Your task to perform on an android device: turn notification dots on Image 0: 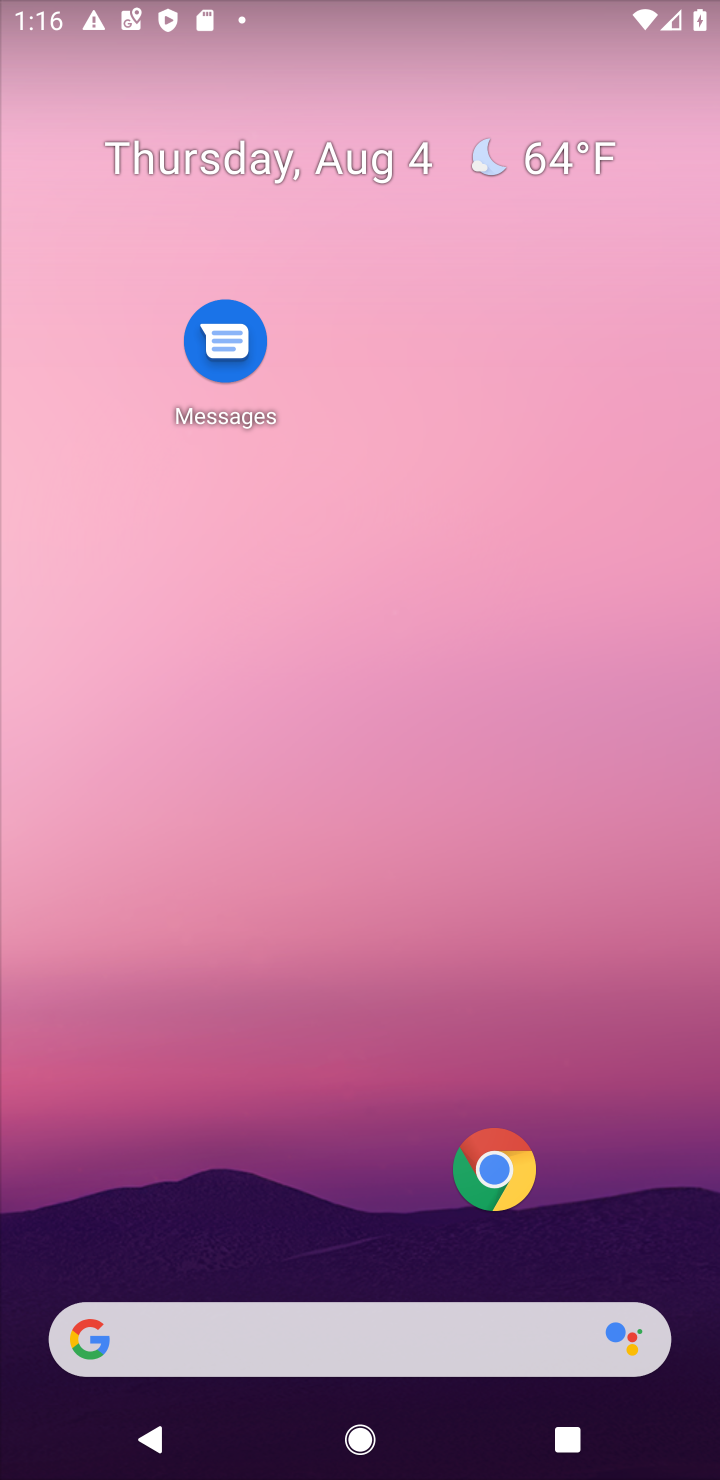
Step 0: drag from (279, 1263) to (194, 6)
Your task to perform on an android device: turn notification dots on Image 1: 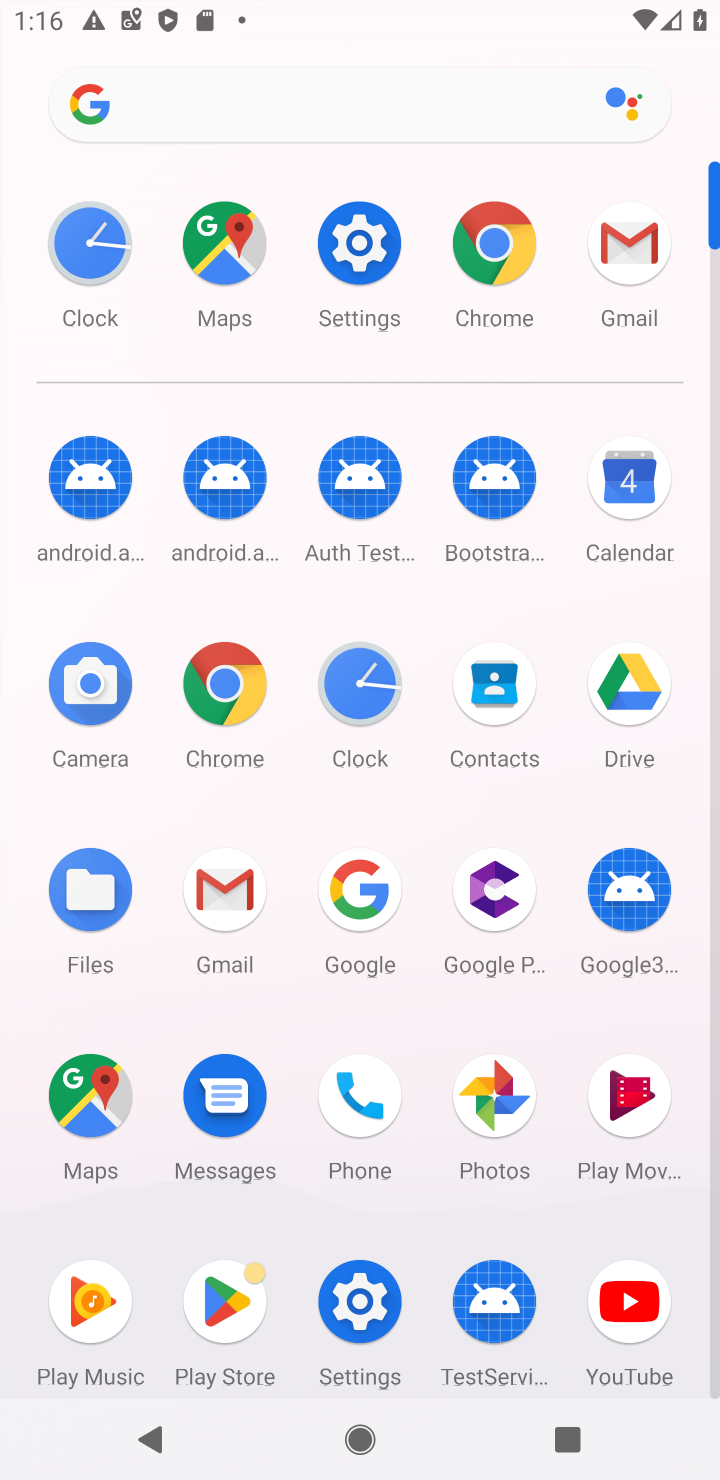
Step 1: click (350, 273)
Your task to perform on an android device: turn notification dots on Image 2: 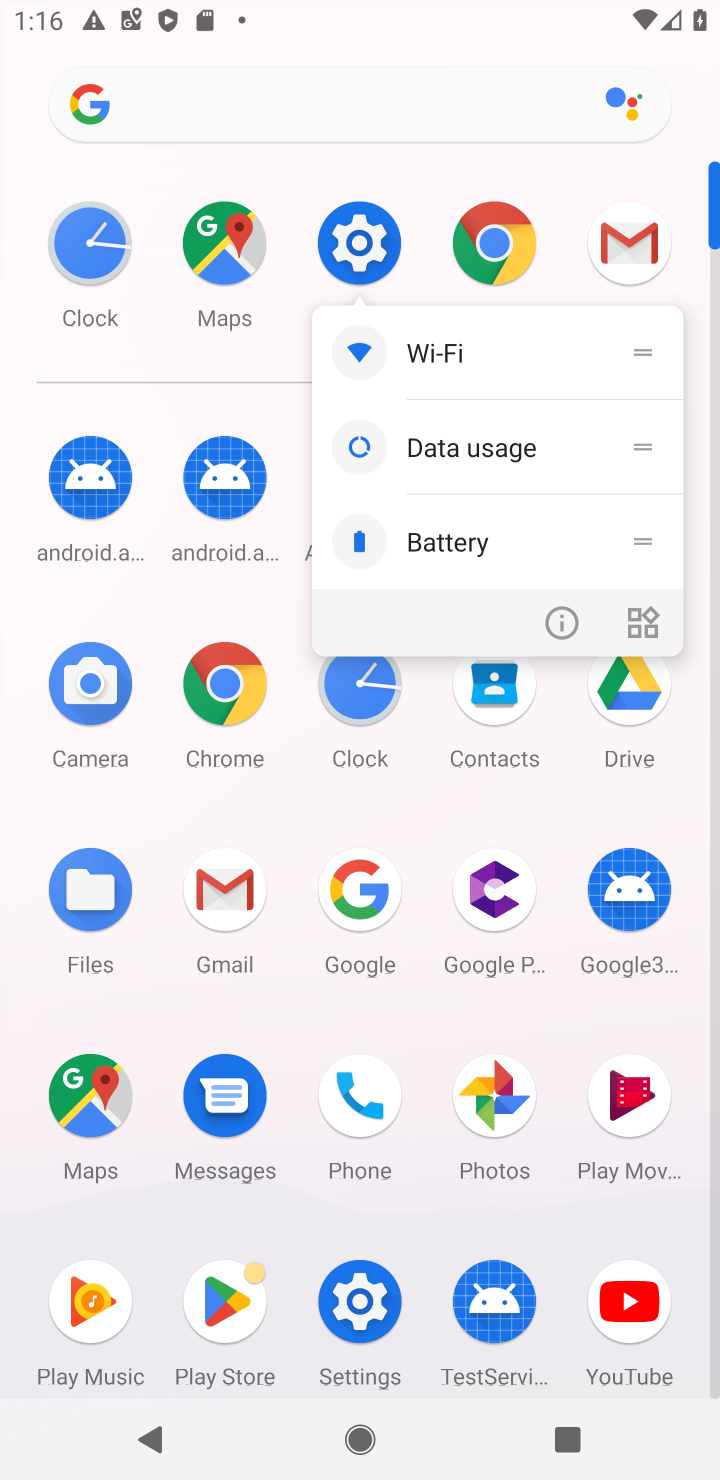
Step 2: click (376, 240)
Your task to perform on an android device: turn notification dots on Image 3: 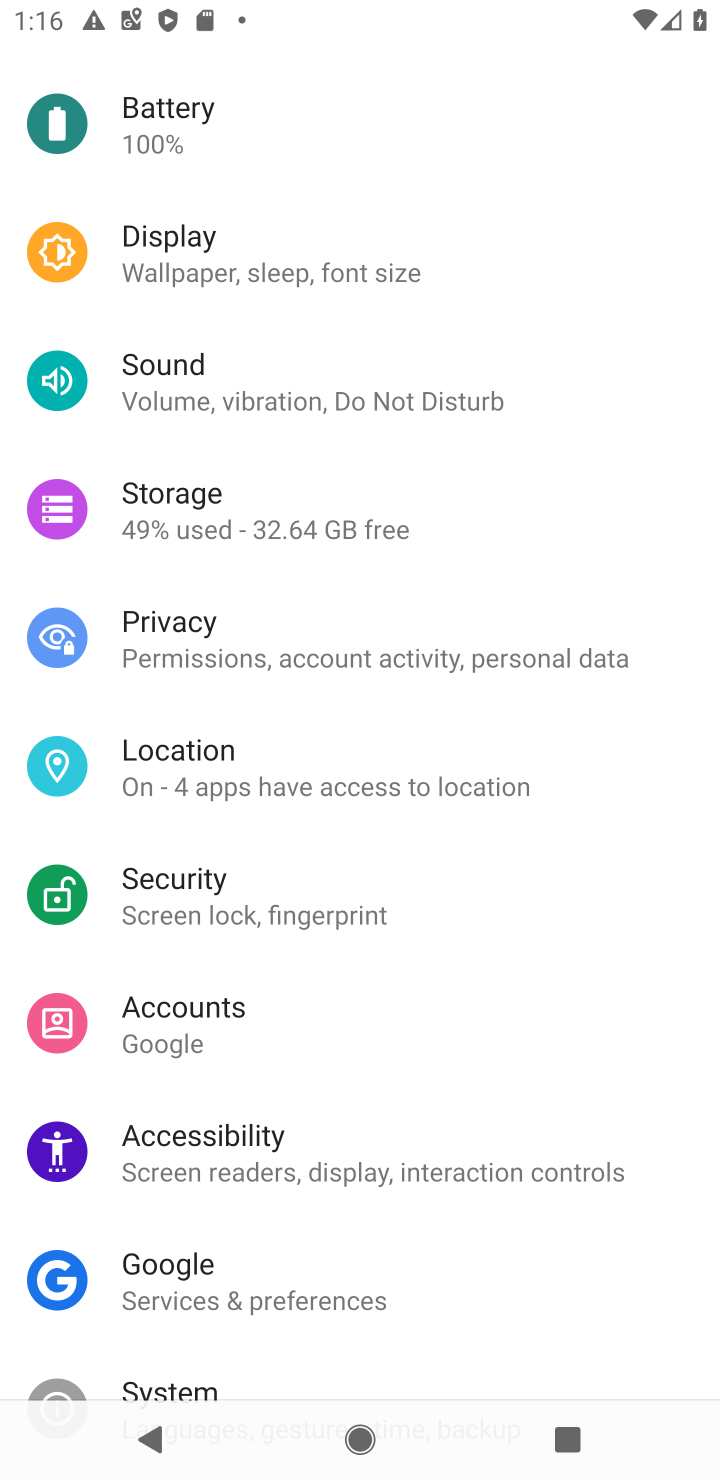
Step 3: drag from (233, 350) to (299, 1328)
Your task to perform on an android device: turn notification dots on Image 4: 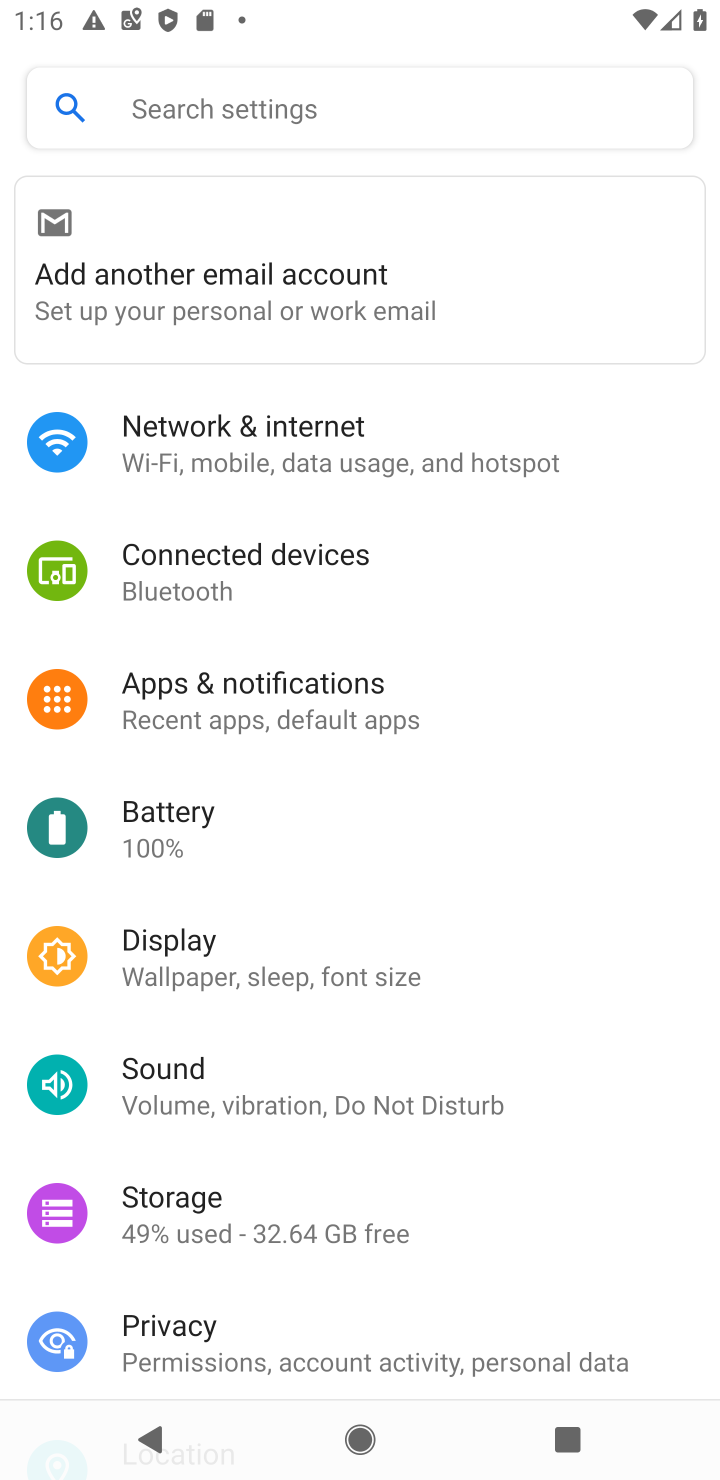
Step 4: click (298, 699)
Your task to perform on an android device: turn notification dots on Image 5: 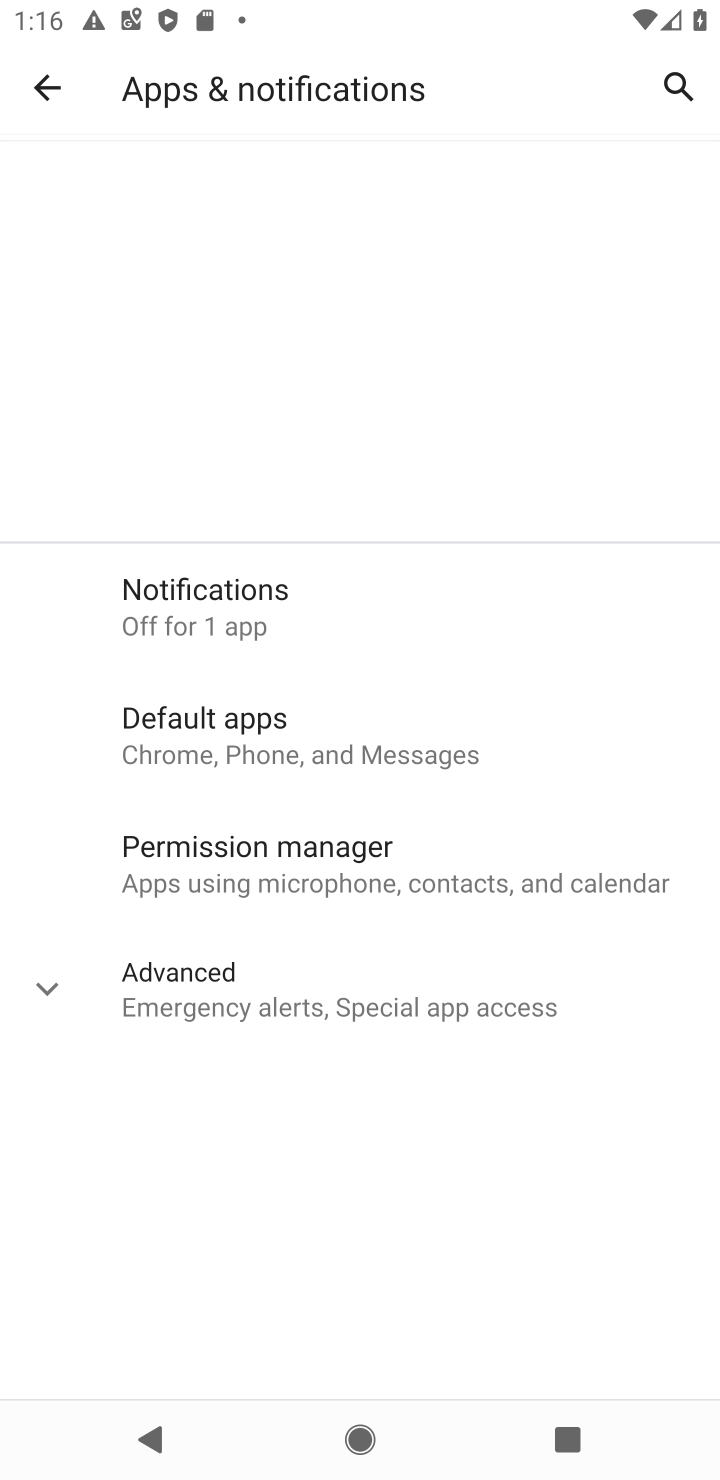
Step 5: click (247, 619)
Your task to perform on an android device: turn notification dots on Image 6: 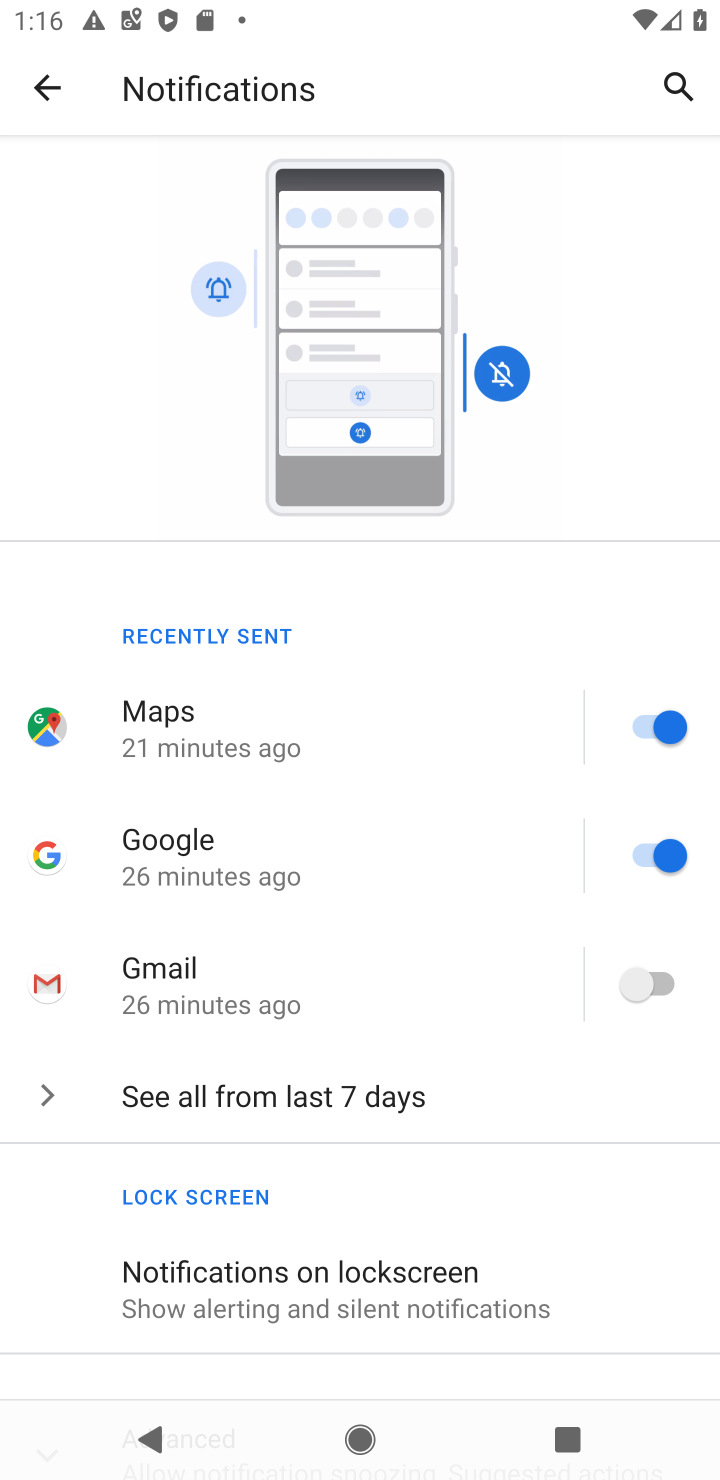
Step 6: drag from (239, 1240) to (271, 576)
Your task to perform on an android device: turn notification dots on Image 7: 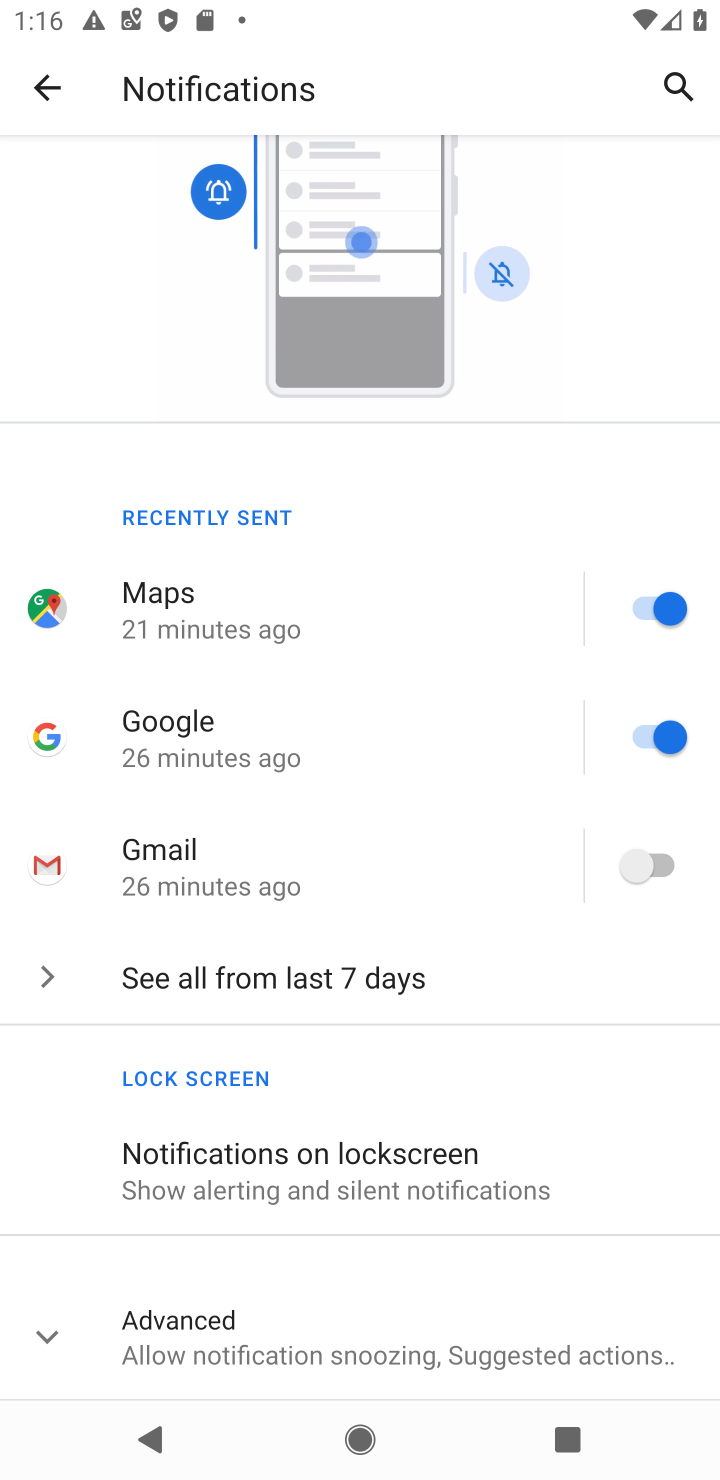
Step 7: drag from (288, 1234) to (290, 965)
Your task to perform on an android device: turn notification dots on Image 8: 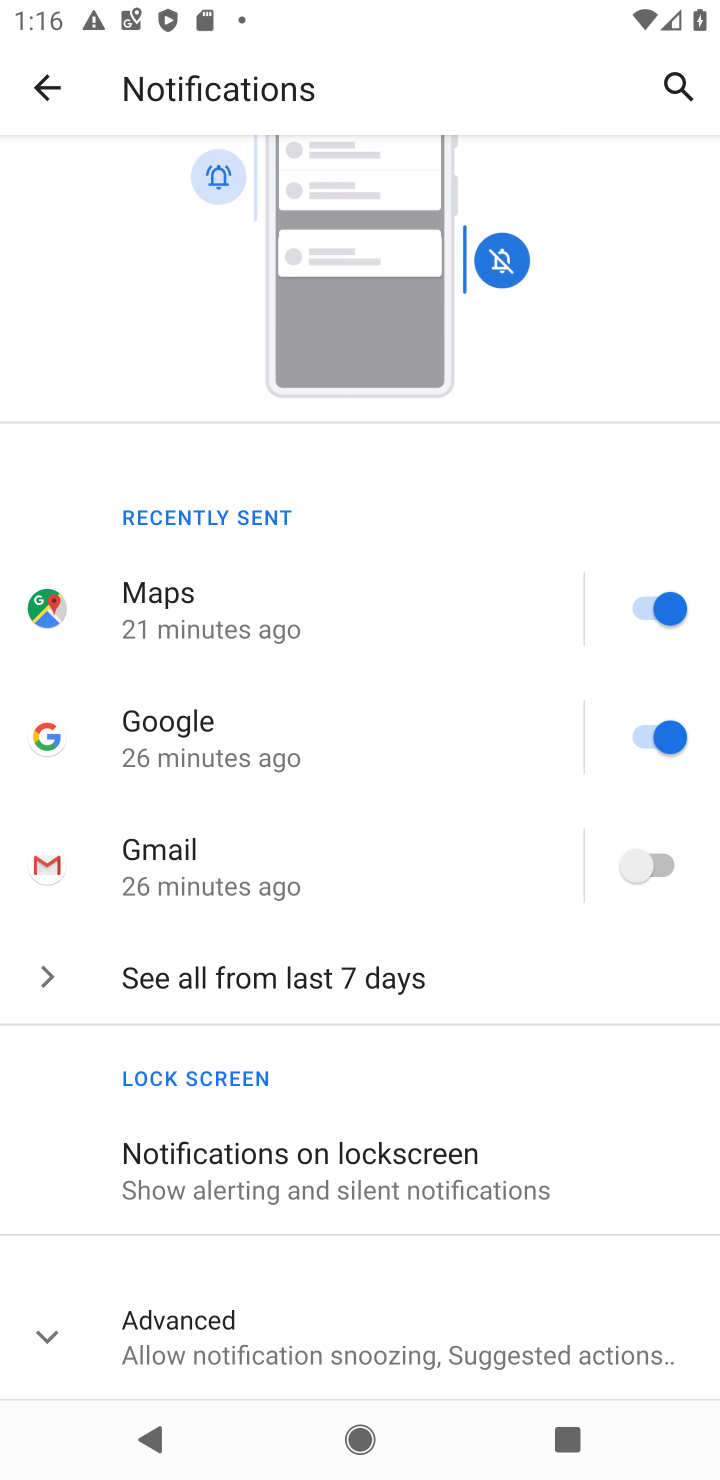
Step 8: click (265, 1320)
Your task to perform on an android device: turn notification dots on Image 9: 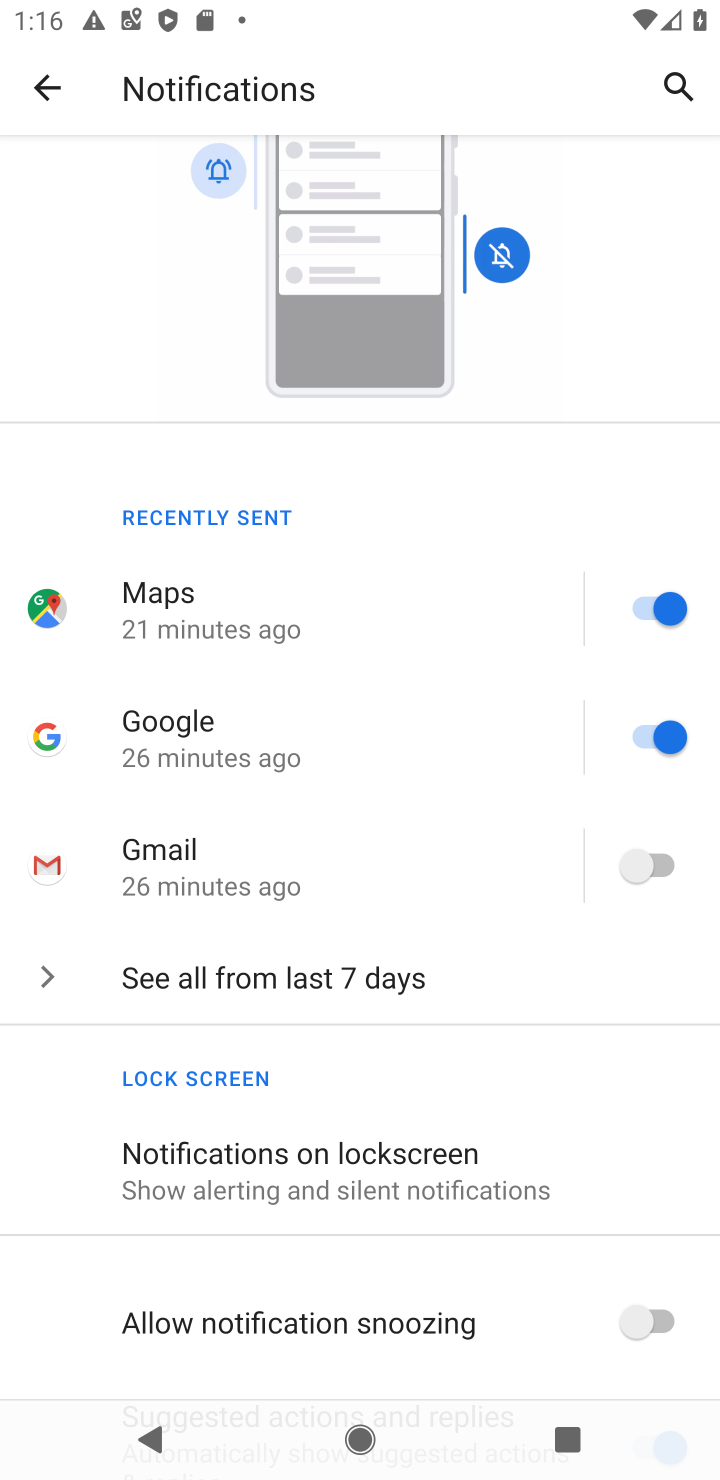
Step 9: task complete